Your task to perform on an android device: Open Google Chrome Image 0: 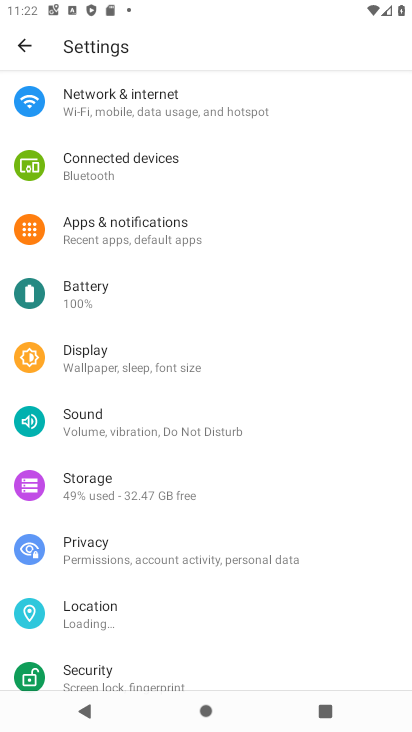
Step 0: press home button
Your task to perform on an android device: Open Google Chrome Image 1: 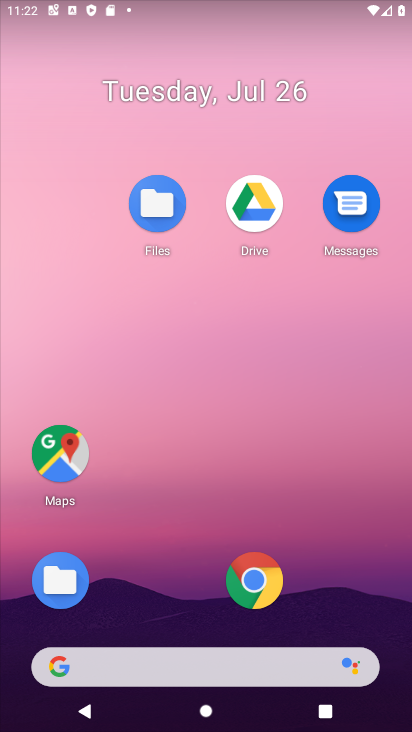
Step 1: click (258, 578)
Your task to perform on an android device: Open Google Chrome Image 2: 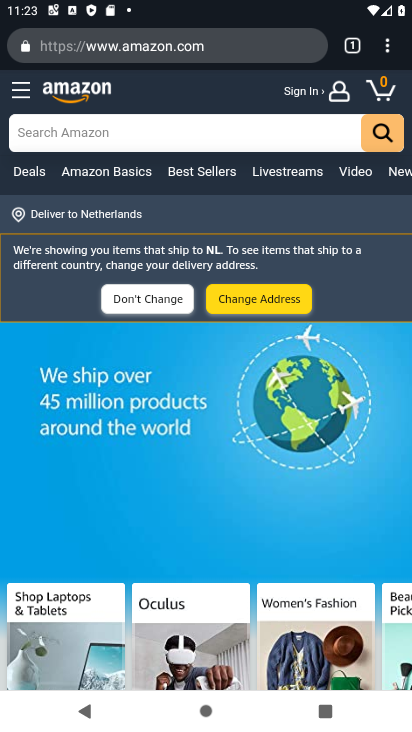
Step 2: task complete